Your task to perform on an android device: Search for vegetarian restaurants on Maps Image 0: 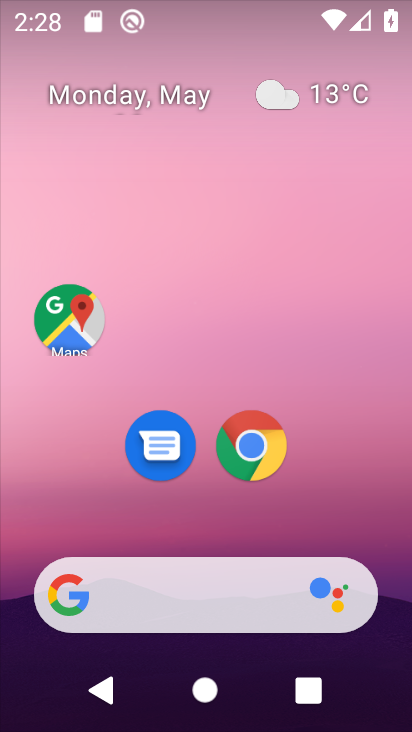
Step 0: click (70, 326)
Your task to perform on an android device: Search for vegetarian restaurants on Maps Image 1: 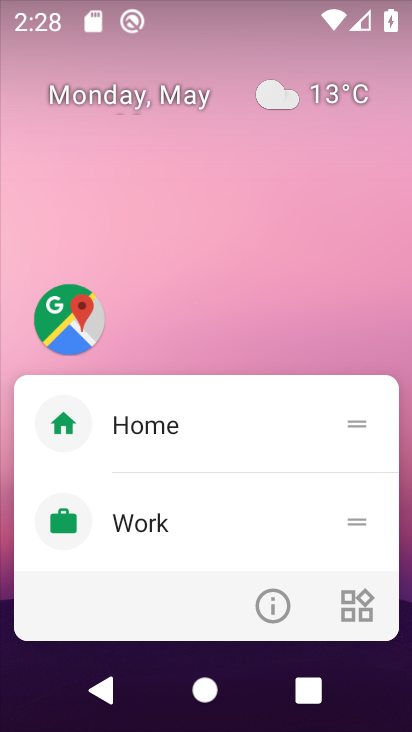
Step 1: click (71, 322)
Your task to perform on an android device: Search for vegetarian restaurants on Maps Image 2: 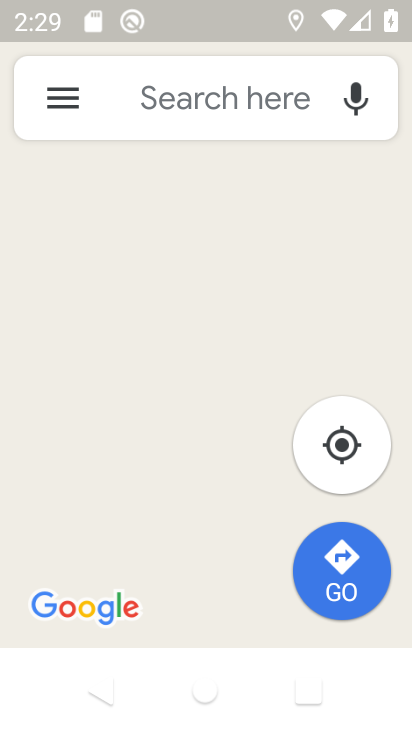
Step 2: click (165, 111)
Your task to perform on an android device: Search for vegetarian restaurants on Maps Image 3: 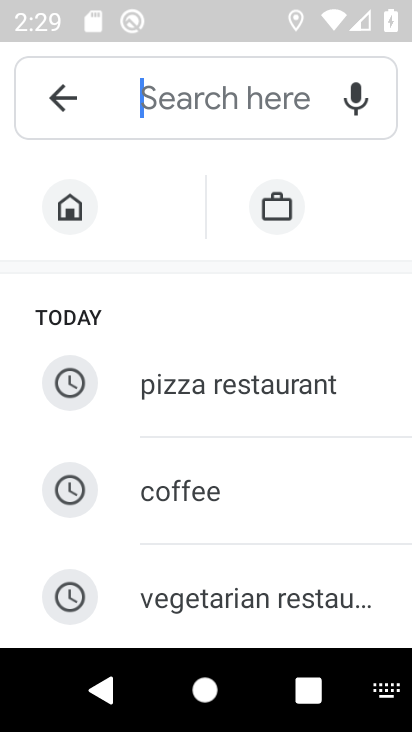
Step 3: type "vegetarian restaurants"
Your task to perform on an android device: Search for vegetarian restaurants on Maps Image 4: 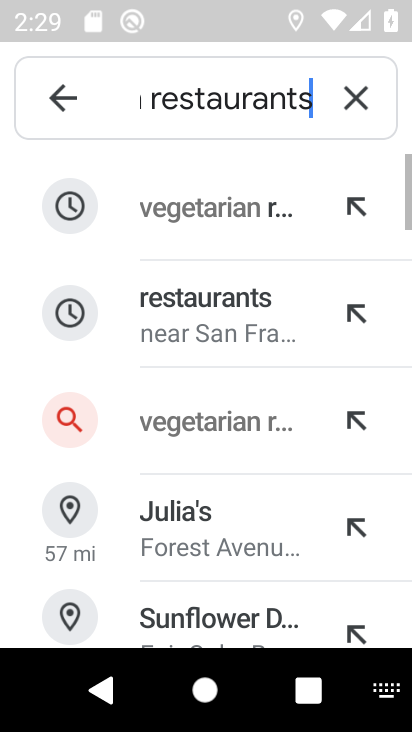
Step 4: click (173, 232)
Your task to perform on an android device: Search for vegetarian restaurants on Maps Image 5: 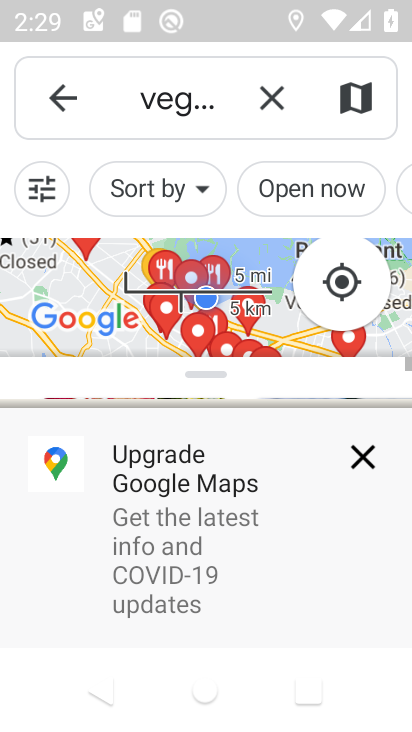
Step 5: click (364, 464)
Your task to perform on an android device: Search for vegetarian restaurants on Maps Image 6: 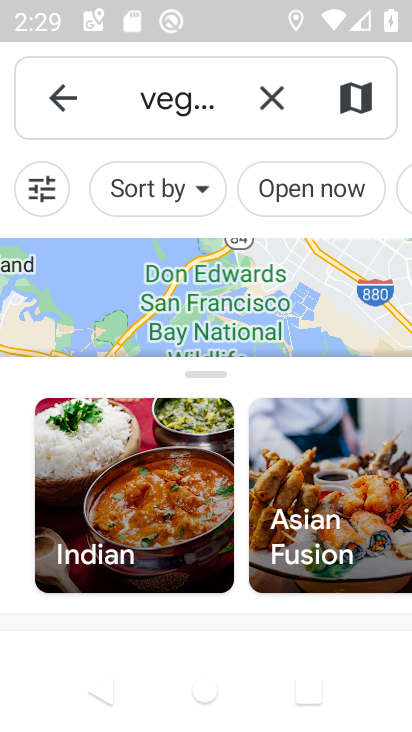
Step 6: task complete